Your task to perform on an android device: Go to calendar. Show me events next week Image 0: 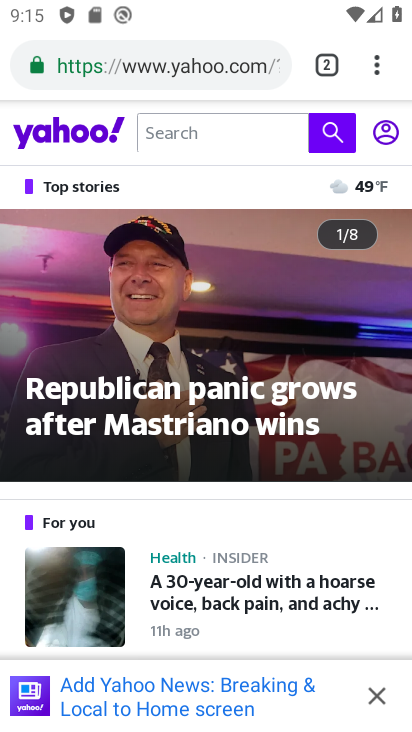
Step 0: press home button
Your task to perform on an android device: Go to calendar. Show me events next week Image 1: 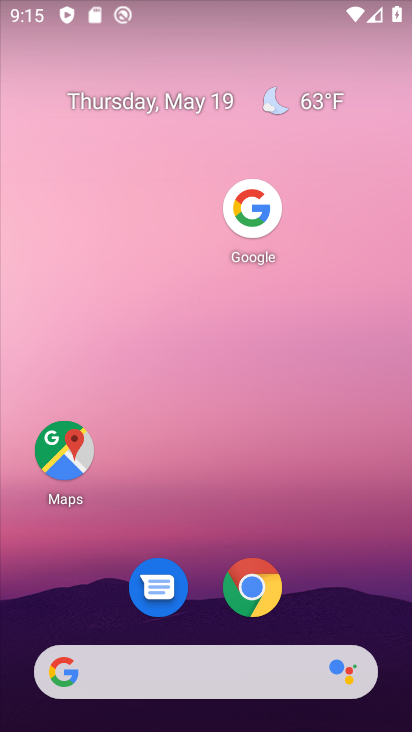
Step 1: drag from (211, 622) to (237, 8)
Your task to perform on an android device: Go to calendar. Show me events next week Image 2: 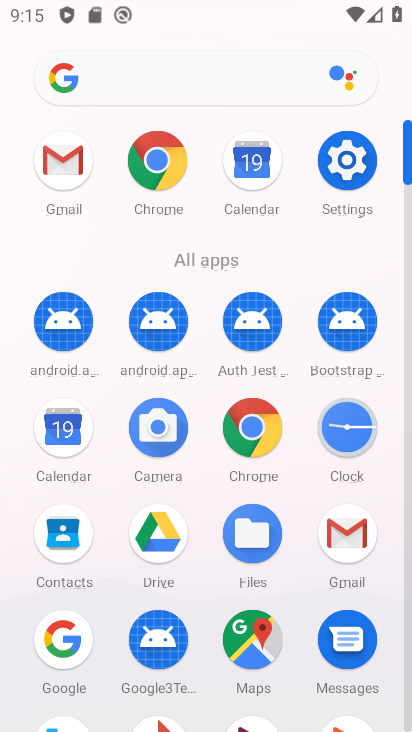
Step 2: click (64, 432)
Your task to perform on an android device: Go to calendar. Show me events next week Image 3: 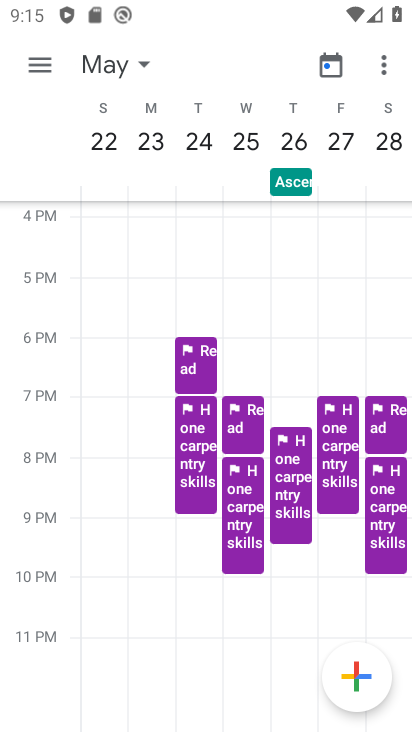
Step 3: task complete